Your task to perform on an android device: Go to Yahoo.com Image 0: 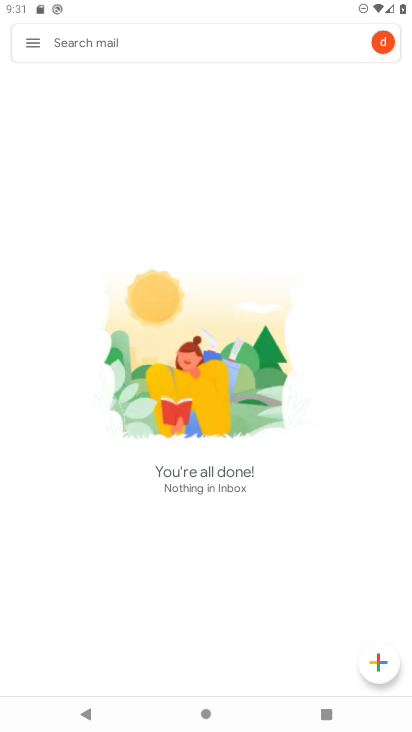
Step 0: press home button
Your task to perform on an android device: Go to Yahoo.com Image 1: 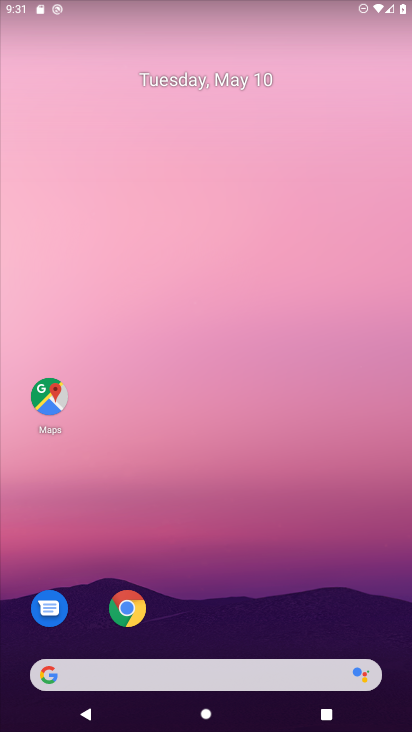
Step 1: drag from (319, 629) to (164, 35)
Your task to perform on an android device: Go to Yahoo.com Image 2: 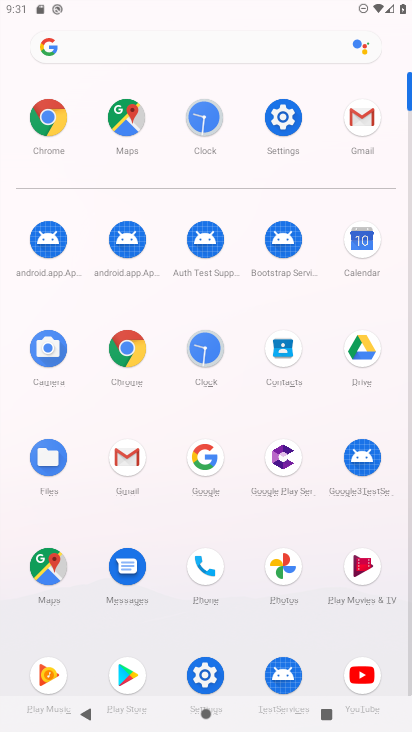
Step 2: click (135, 349)
Your task to perform on an android device: Go to Yahoo.com Image 3: 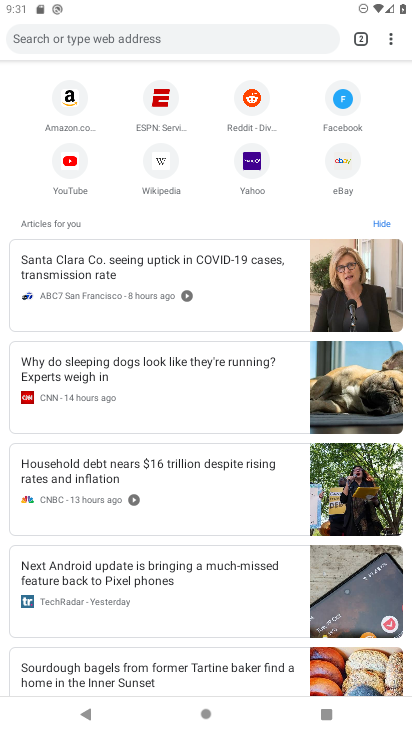
Step 3: click (242, 162)
Your task to perform on an android device: Go to Yahoo.com Image 4: 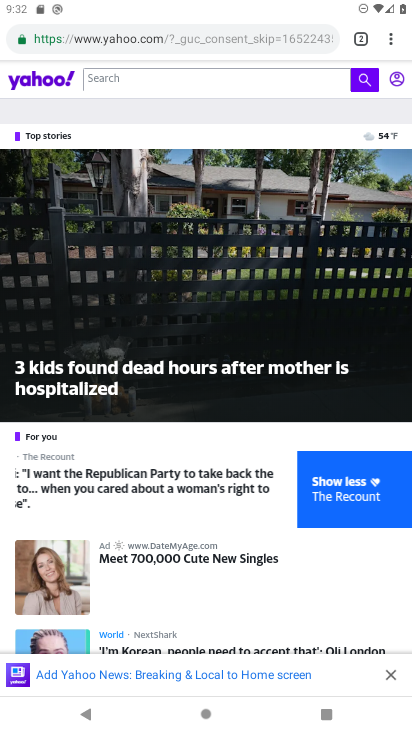
Step 4: task complete